Your task to perform on an android device: What is the news today? Image 0: 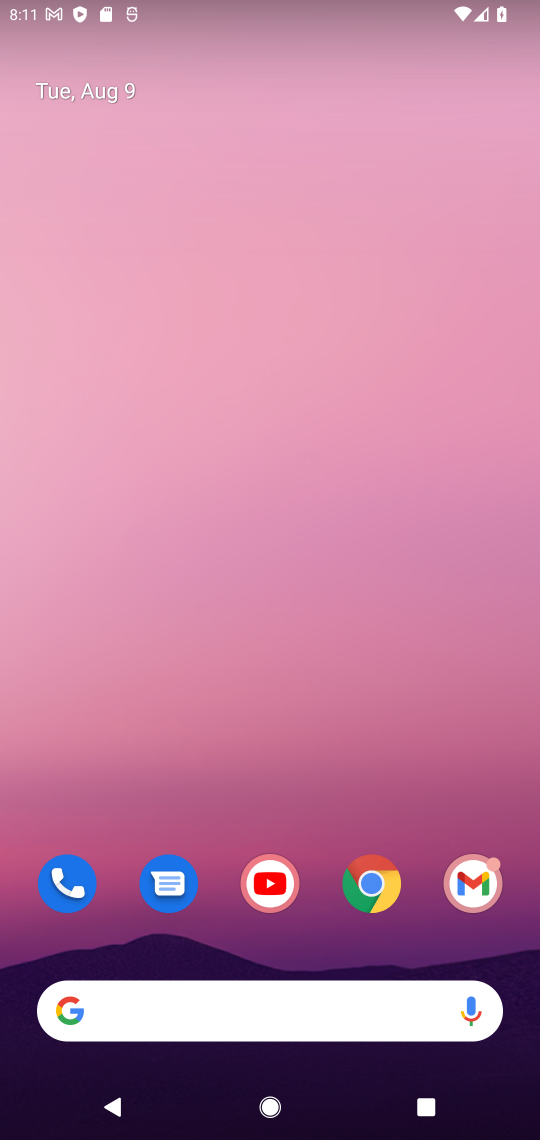
Step 0: drag from (318, 947) to (342, 249)
Your task to perform on an android device: What is the news today? Image 1: 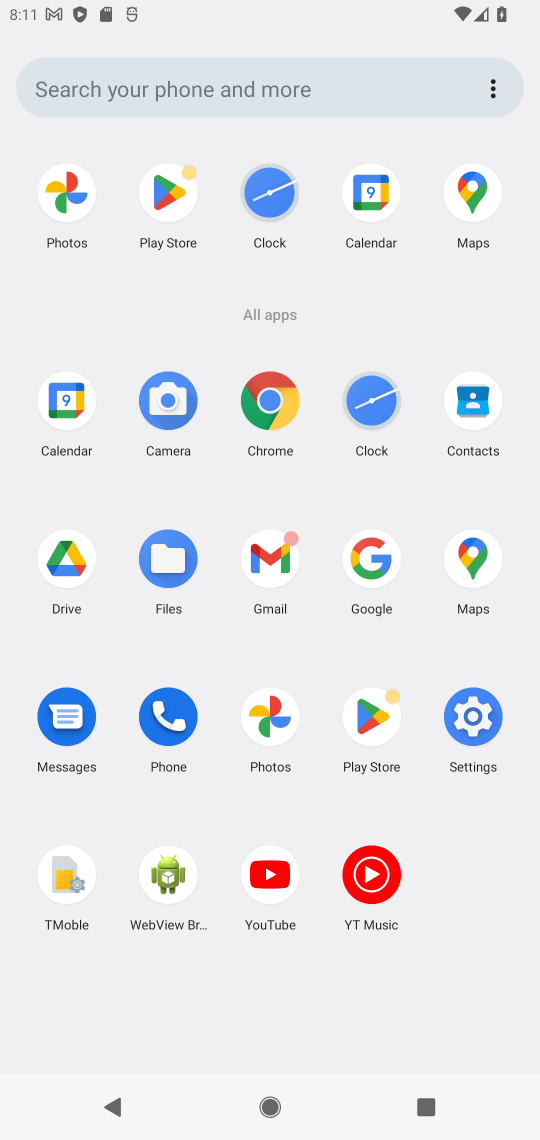
Step 1: click (266, 398)
Your task to perform on an android device: What is the news today? Image 2: 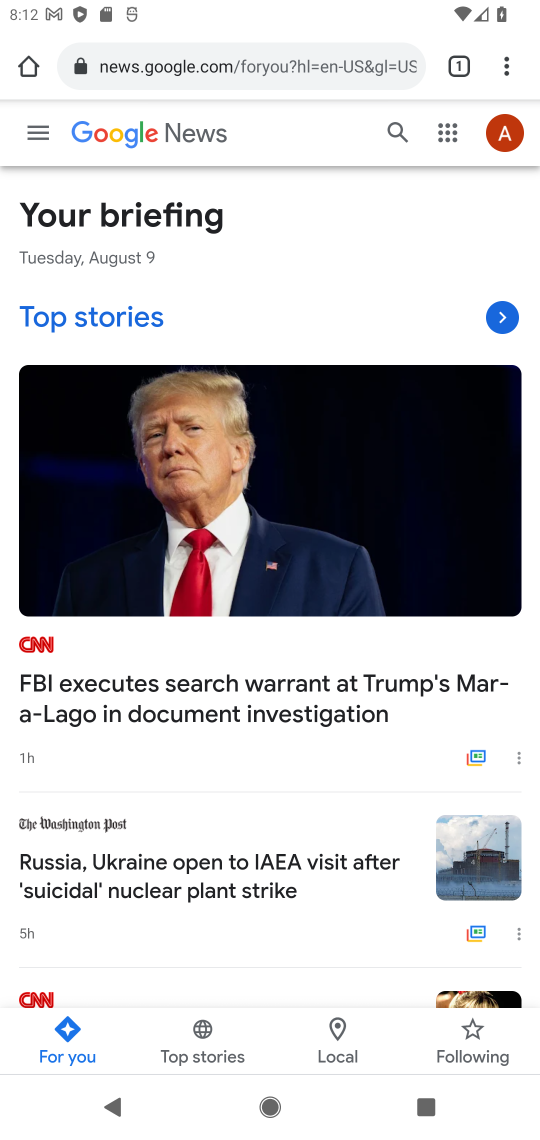
Step 2: task complete